Your task to perform on an android device: What's a good restaurant in Houston? Image 0: 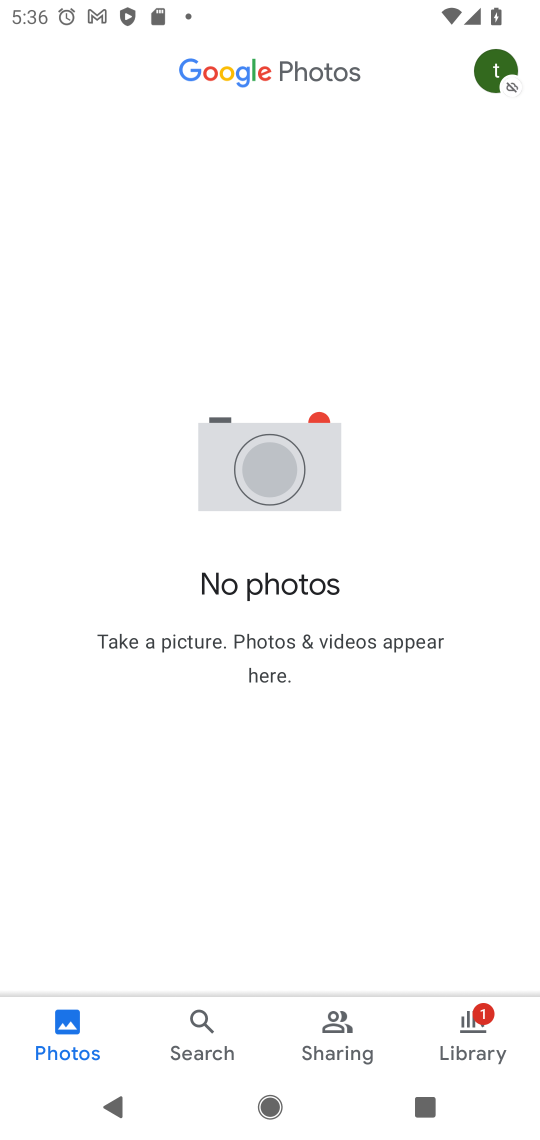
Step 0: press home button
Your task to perform on an android device: What's a good restaurant in Houston? Image 1: 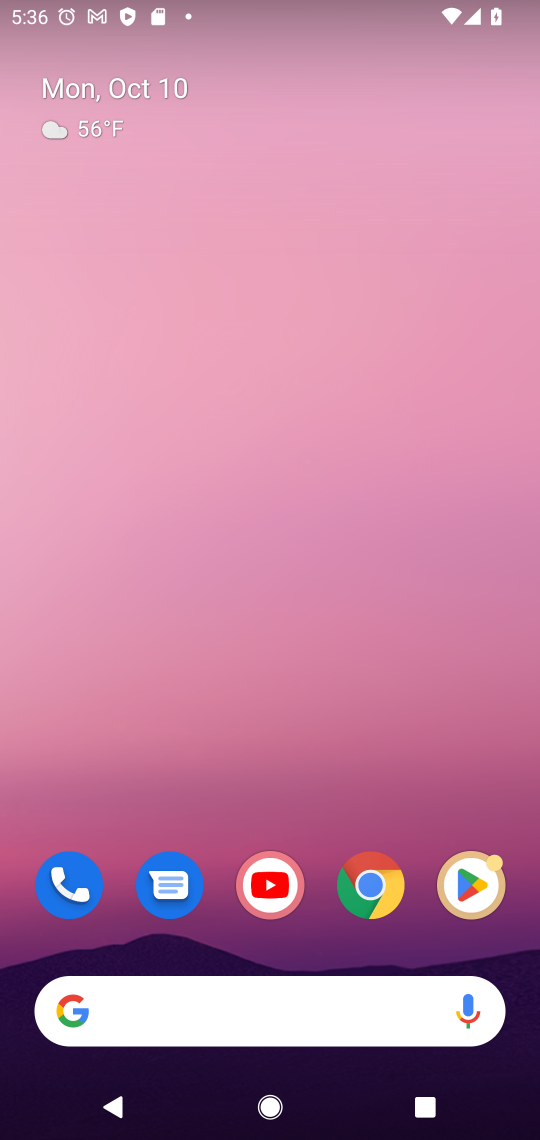
Step 1: click (271, 1016)
Your task to perform on an android device: What's a good restaurant in Houston? Image 2: 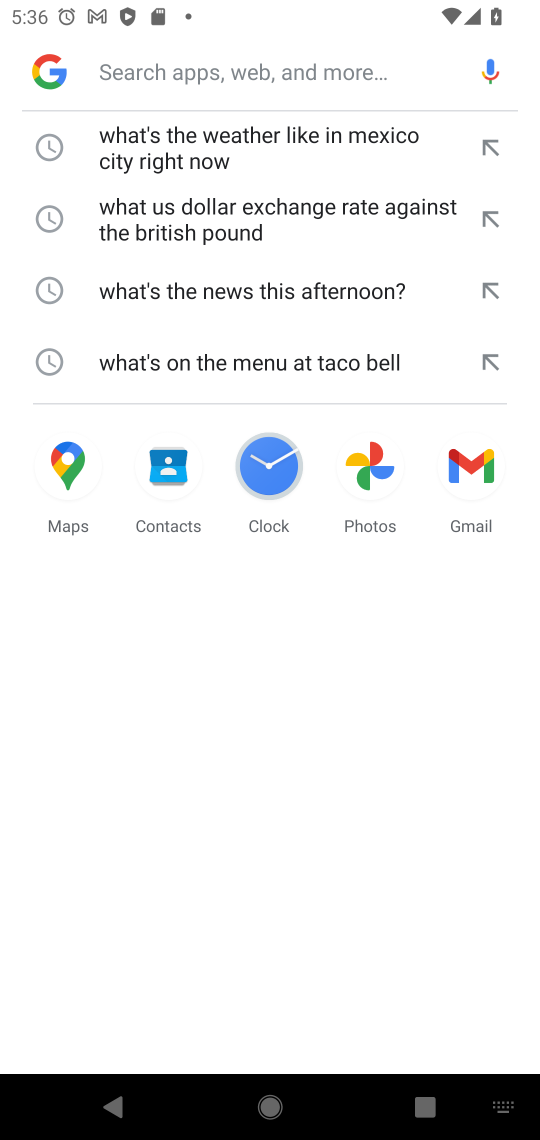
Step 2: type "What's a good restaurant in Houston?"
Your task to perform on an android device: What's a good restaurant in Houston? Image 3: 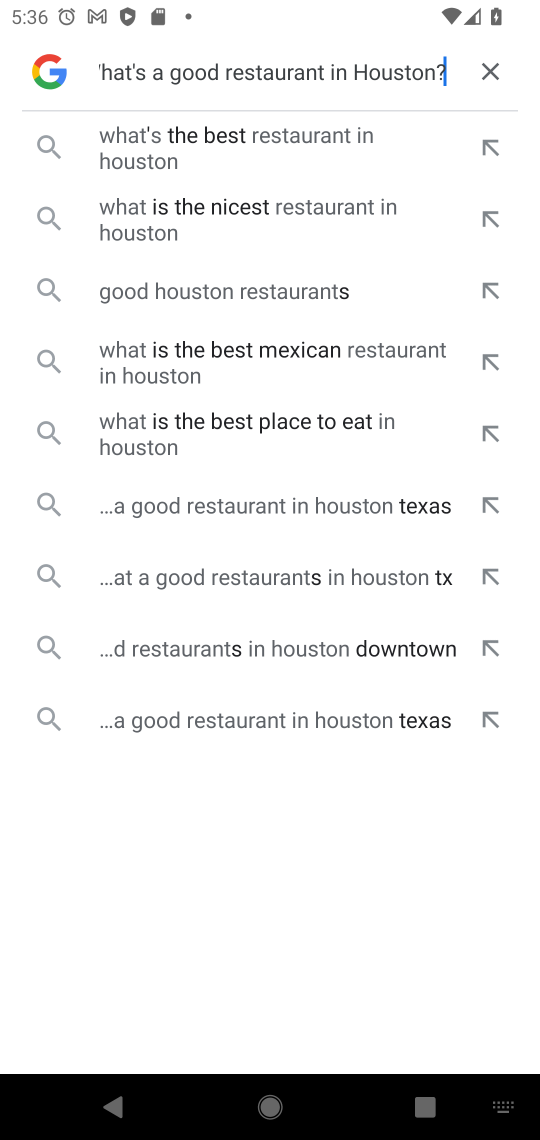
Step 3: click (219, 146)
Your task to perform on an android device: What's a good restaurant in Houston? Image 4: 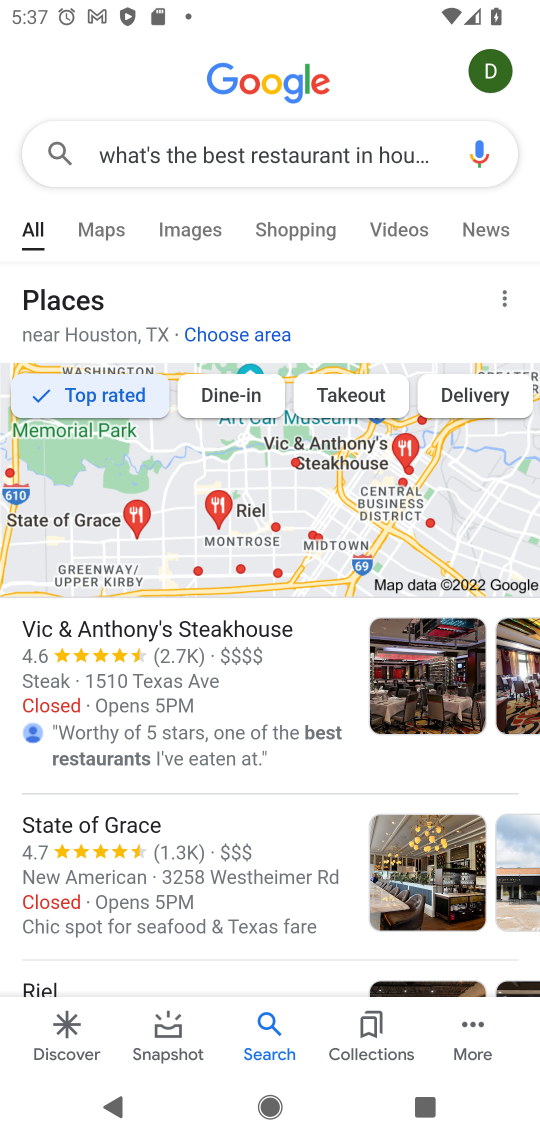
Step 4: task complete